Your task to perform on an android device: Go to network settings Image 0: 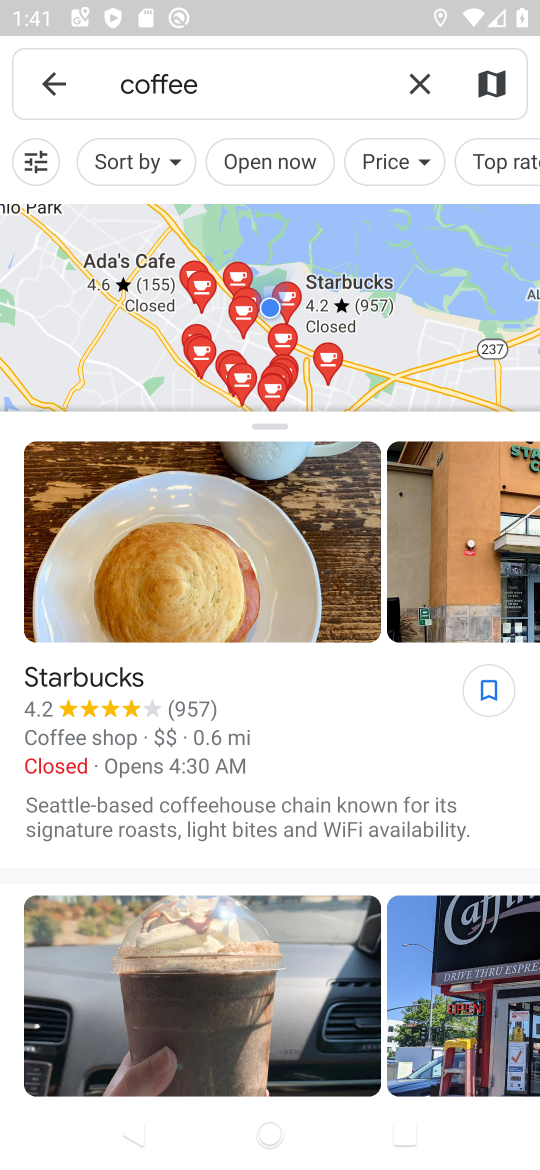
Step 0: press home button
Your task to perform on an android device: Go to network settings Image 1: 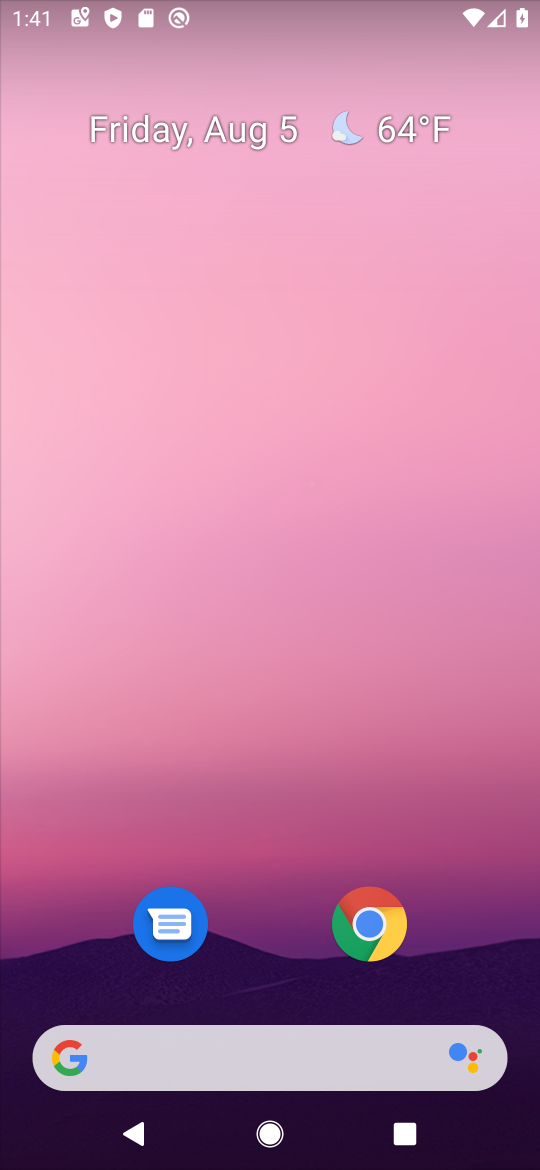
Step 1: drag from (227, 1060) to (278, 270)
Your task to perform on an android device: Go to network settings Image 2: 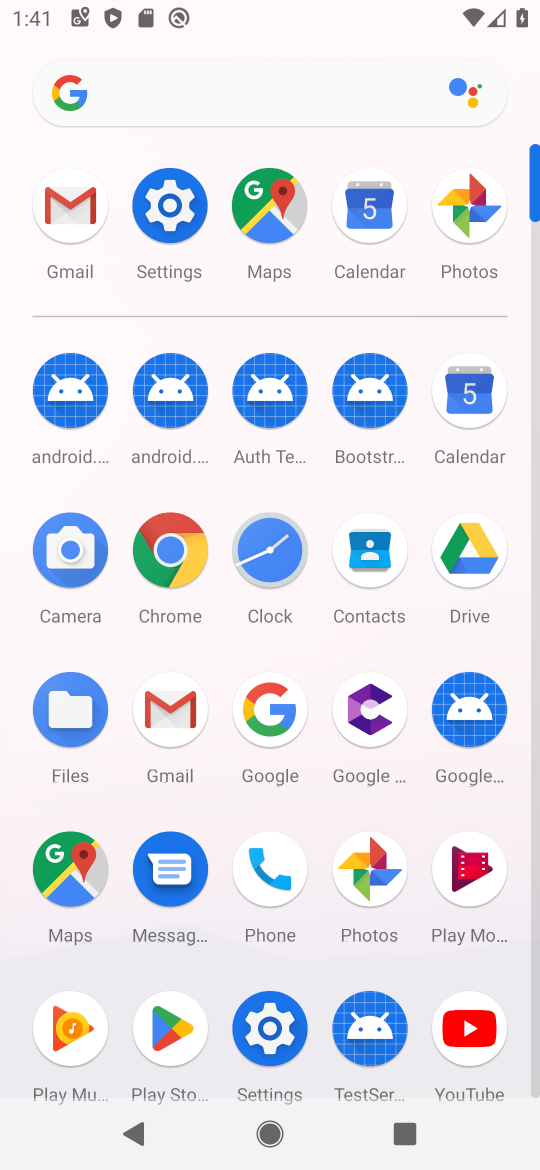
Step 2: click (166, 201)
Your task to perform on an android device: Go to network settings Image 3: 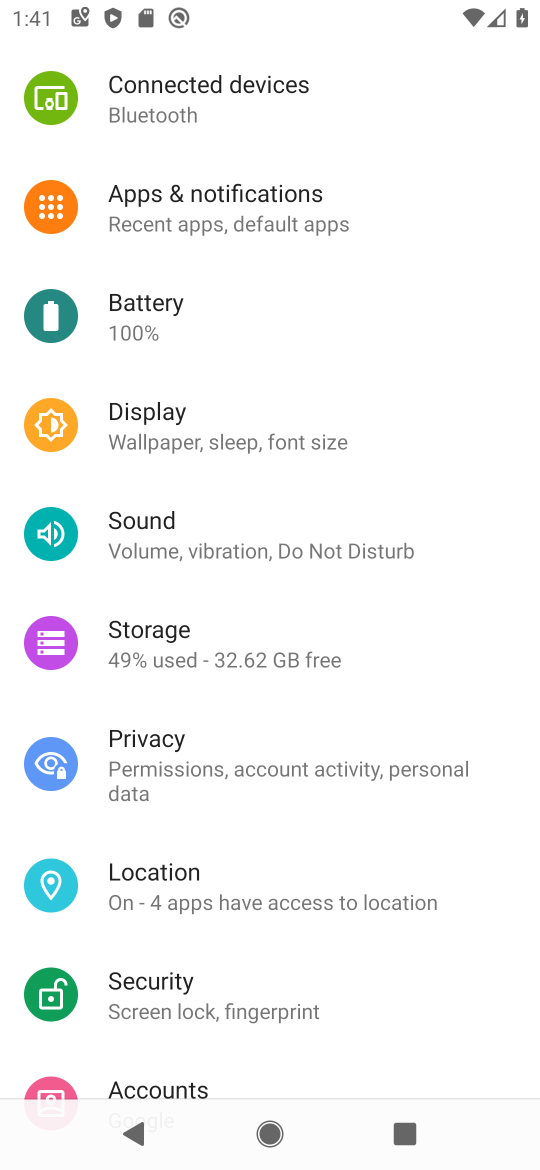
Step 3: drag from (310, 305) to (113, 612)
Your task to perform on an android device: Go to network settings Image 4: 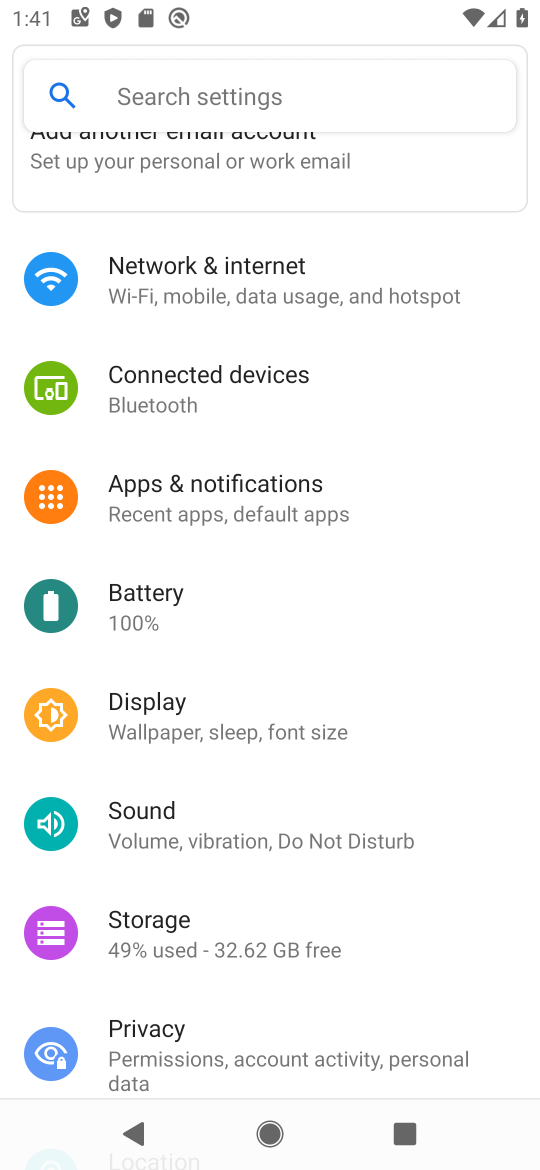
Step 4: click (232, 302)
Your task to perform on an android device: Go to network settings Image 5: 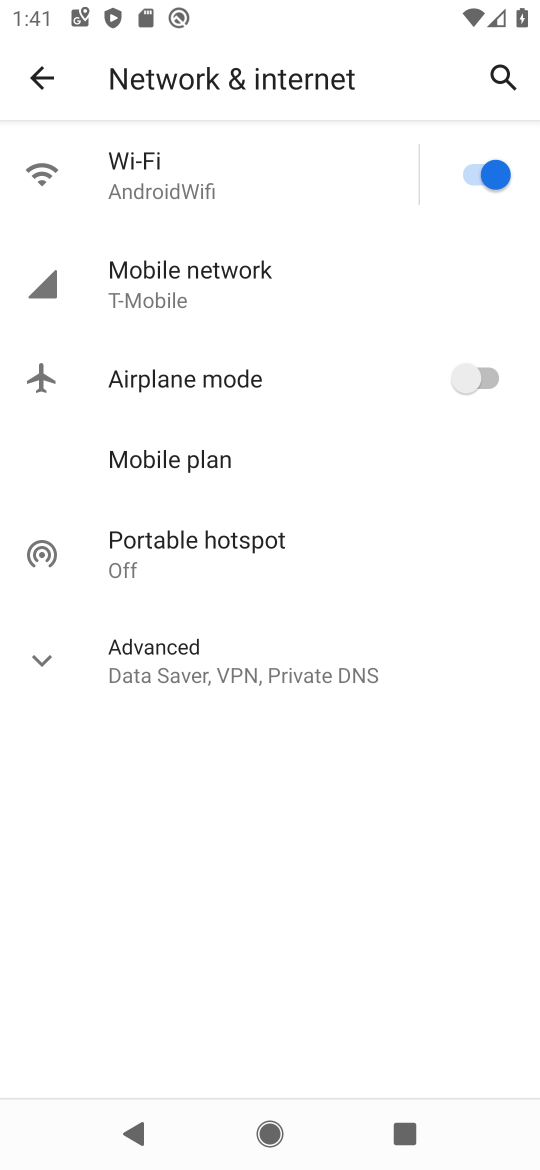
Step 5: task complete